Your task to perform on an android device: Open privacy settings Image 0: 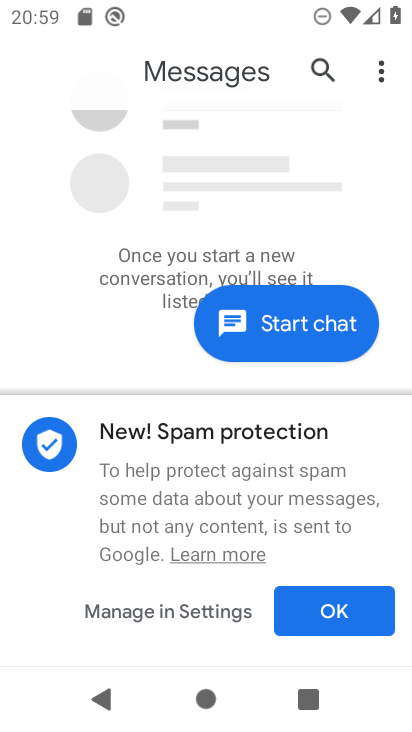
Step 0: press home button
Your task to perform on an android device: Open privacy settings Image 1: 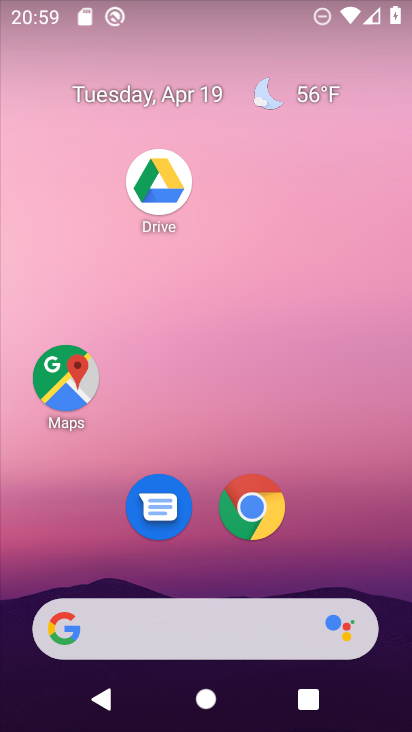
Step 1: click (259, 521)
Your task to perform on an android device: Open privacy settings Image 2: 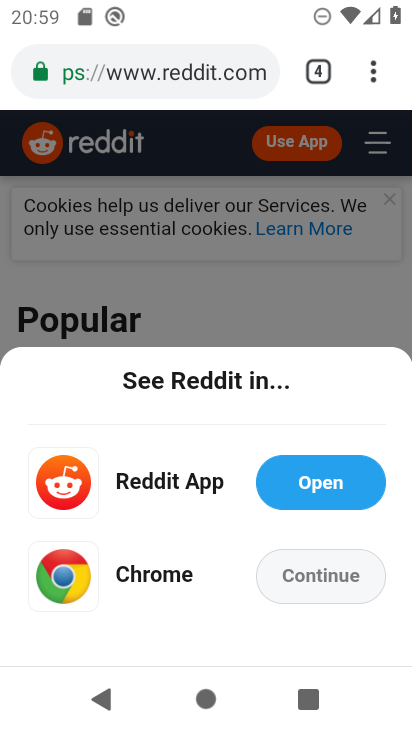
Step 2: drag from (374, 73) to (233, 503)
Your task to perform on an android device: Open privacy settings Image 3: 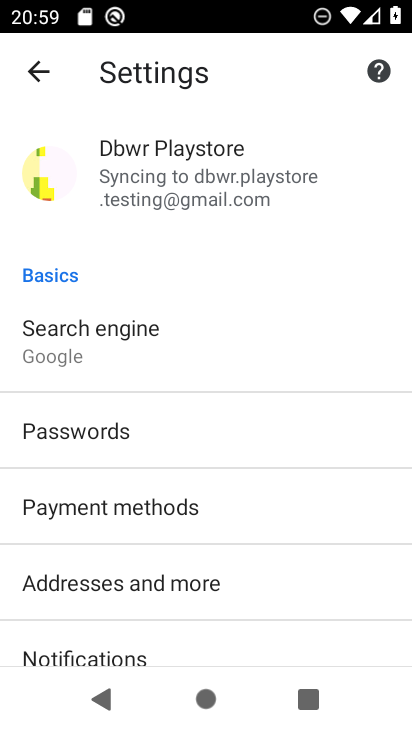
Step 3: drag from (250, 588) to (225, 153)
Your task to perform on an android device: Open privacy settings Image 4: 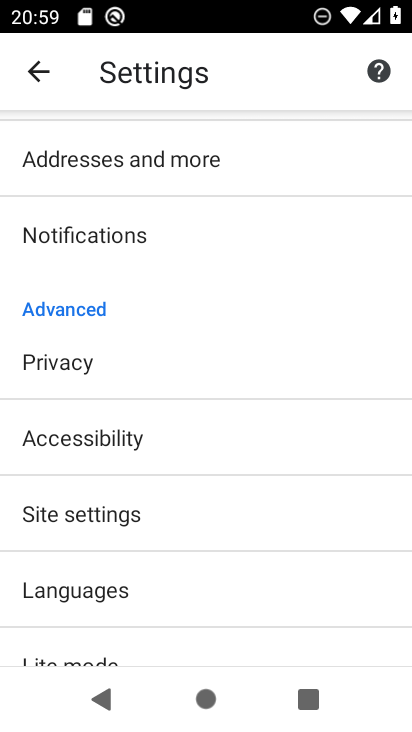
Step 4: click (197, 374)
Your task to perform on an android device: Open privacy settings Image 5: 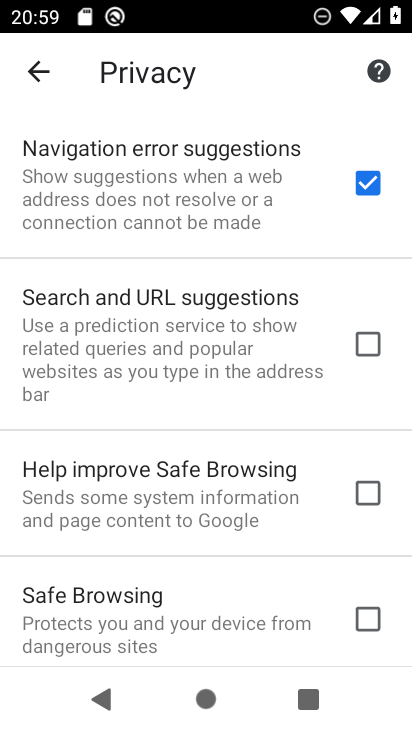
Step 5: task complete